Your task to perform on an android device: Is it going to rain this weekend? Image 0: 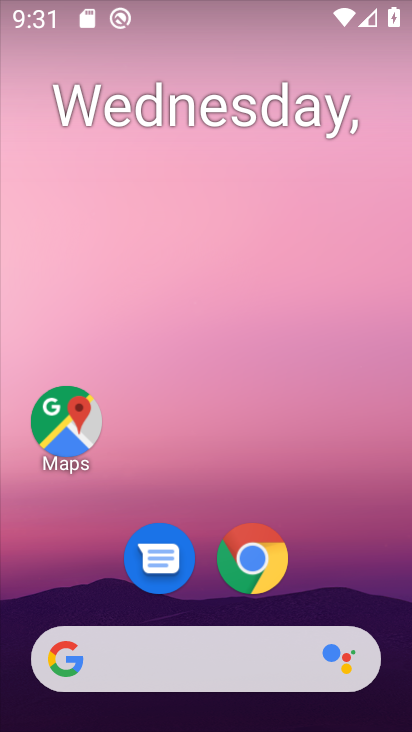
Step 0: click (214, 661)
Your task to perform on an android device: Is it going to rain this weekend? Image 1: 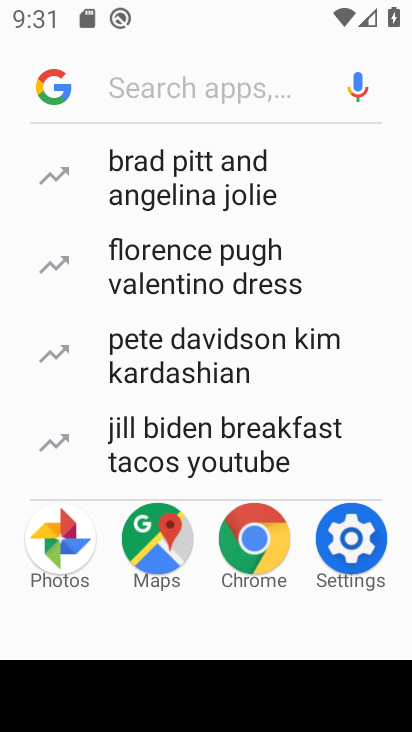
Step 1: type "weather"
Your task to perform on an android device: Is it going to rain this weekend? Image 2: 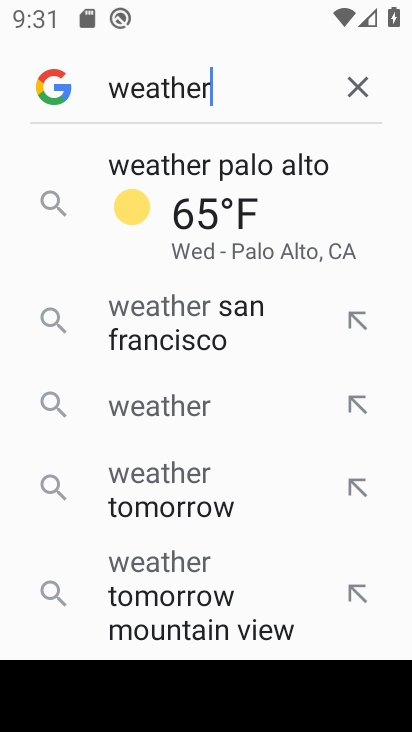
Step 2: click (260, 202)
Your task to perform on an android device: Is it going to rain this weekend? Image 3: 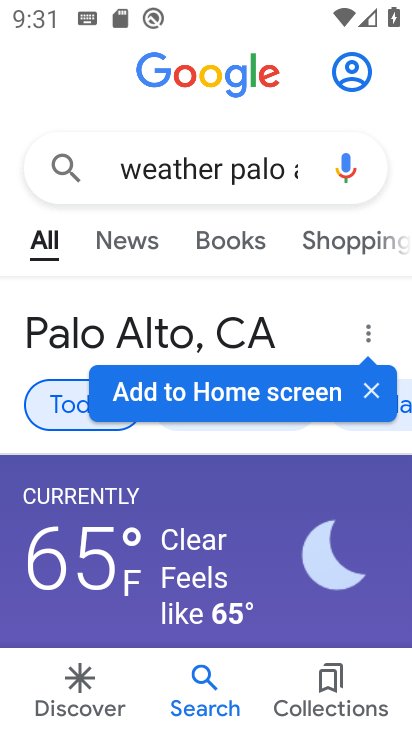
Step 3: click (371, 390)
Your task to perform on an android device: Is it going to rain this weekend? Image 4: 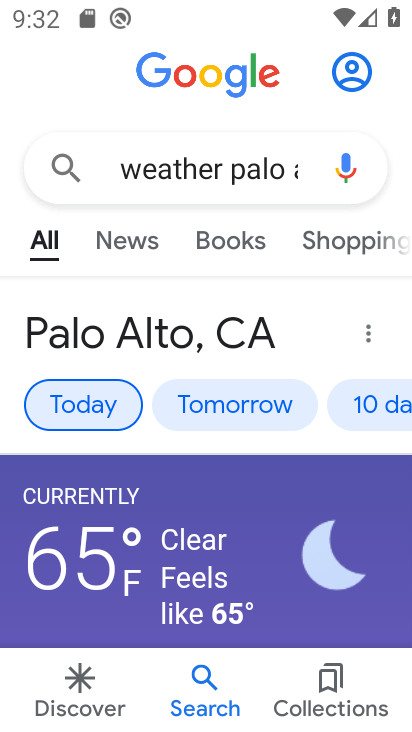
Step 4: click (392, 406)
Your task to perform on an android device: Is it going to rain this weekend? Image 5: 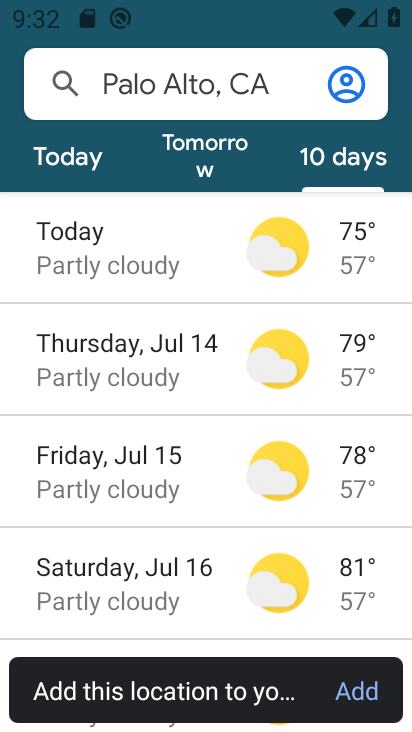
Step 5: drag from (215, 517) to (212, 272)
Your task to perform on an android device: Is it going to rain this weekend? Image 6: 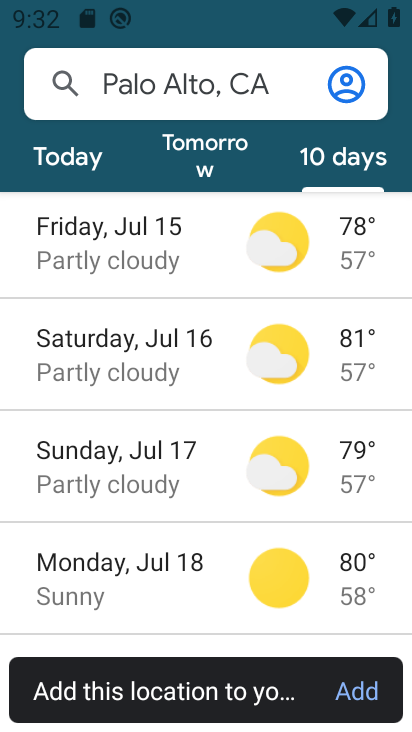
Step 6: click (191, 358)
Your task to perform on an android device: Is it going to rain this weekend? Image 7: 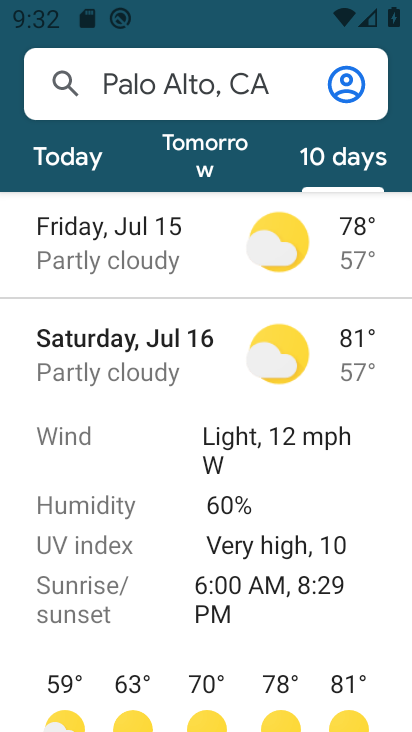
Step 7: task complete